Your task to perform on an android device: Set the phone to "Do not disturb". Image 0: 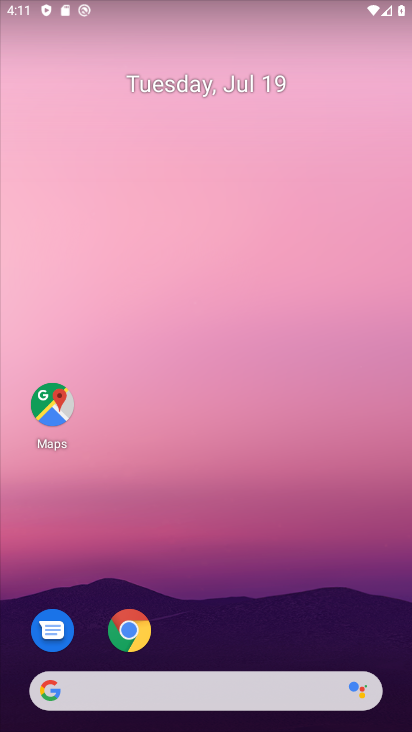
Step 0: drag from (258, 532) to (156, 253)
Your task to perform on an android device: Set the phone to "Do not disturb". Image 1: 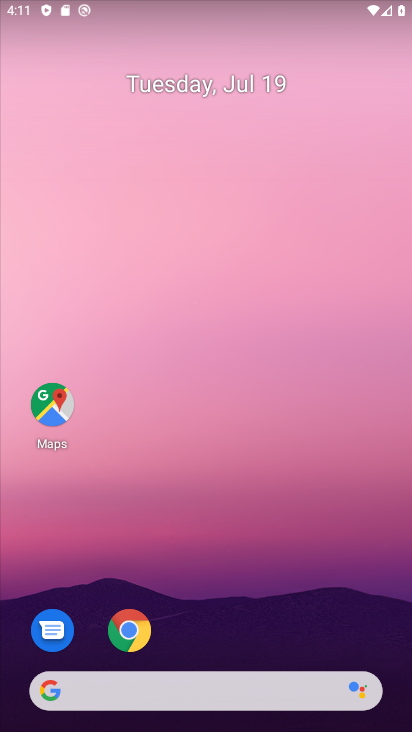
Step 1: drag from (231, 548) to (134, 224)
Your task to perform on an android device: Set the phone to "Do not disturb". Image 2: 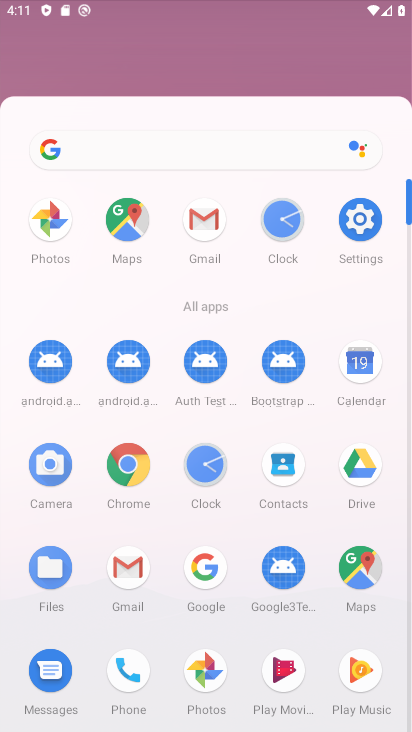
Step 2: click (227, 228)
Your task to perform on an android device: Set the phone to "Do not disturb". Image 3: 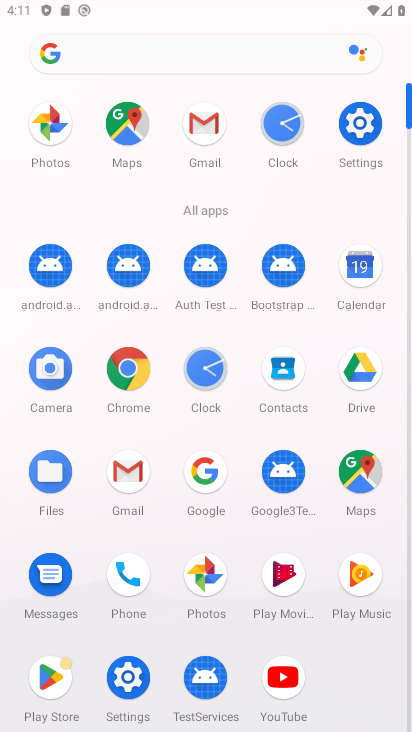
Step 3: drag from (242, 306) to (230, 147)
Your task to perform on an android device: Set the phone to "Do not disturb". Image 4: 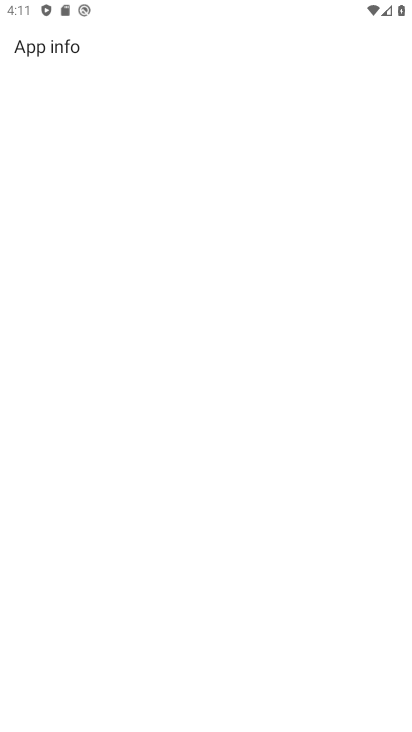
Step 4: click (351, 117)
Your task to perform on an android device: Set the phone to "Do not disturb". Image 5: 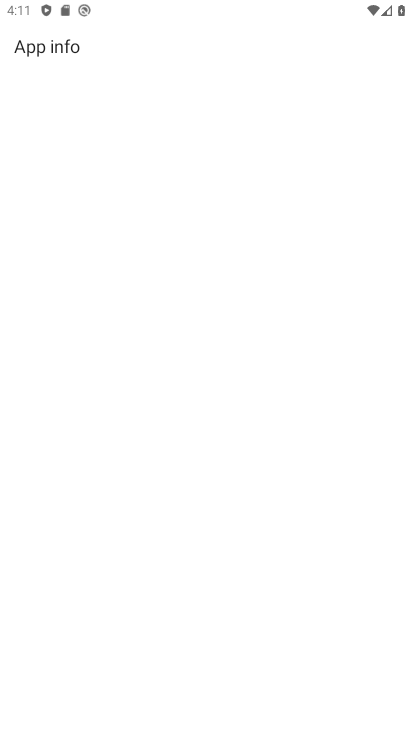
Step 5: click (349, 116)
Your task to perform on an android device: Set the phone to "Do not disturb". Image 6: 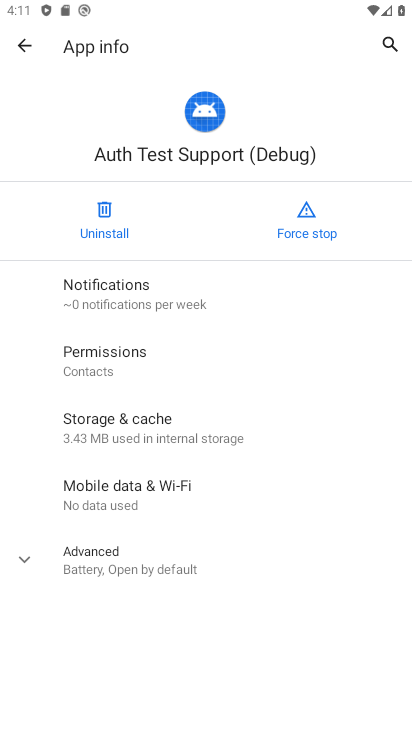
Step 6: click (36, 55)
Your task to perform on an android device: Set the phone to "Do not disturb". Image 7: 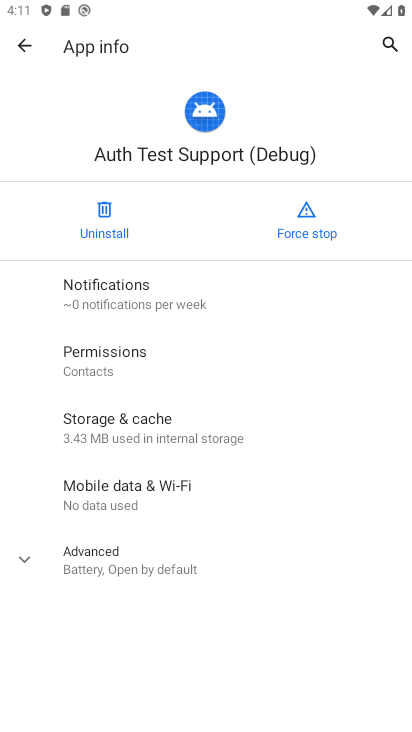
Step 7: click (22, 42)
Your task to perform on an android device: Set the phone to "Do not disturb". Image 8: 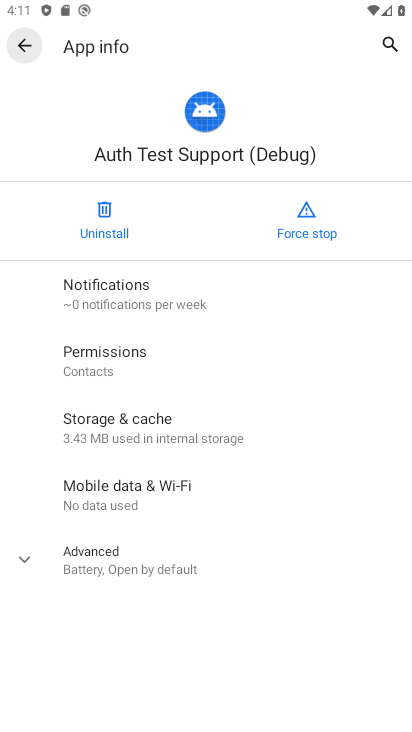
Step 8: click (22, 42)
Your task to perform on an android device: Set the phone to "Do not disturb". Image 9: 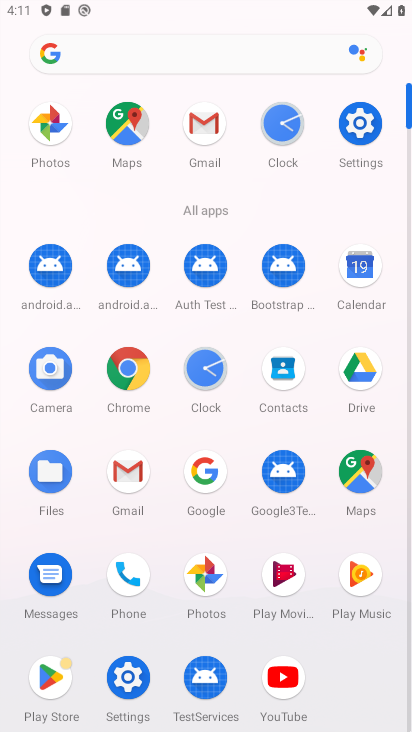
Step 9: click (371, 126)
Your task to perform on an android device: Set the phone to "Do not disturb". Image 10: 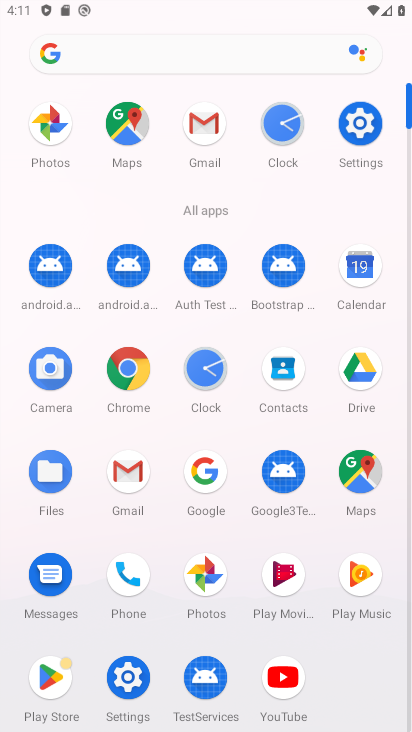
Step 10: click (371, 125)
Your task to perform on an android device: Set the phone to "Do not disturb". Image 11: 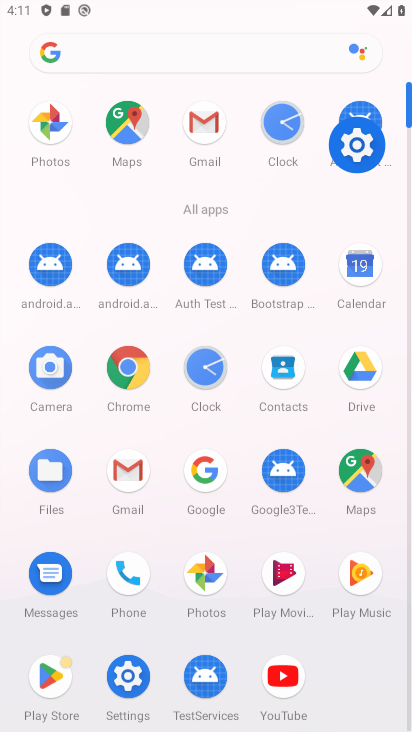
Step 11: click (372, 126)
Your task to perform on an android device: Set the phone to "Do not disturb". Image 12: 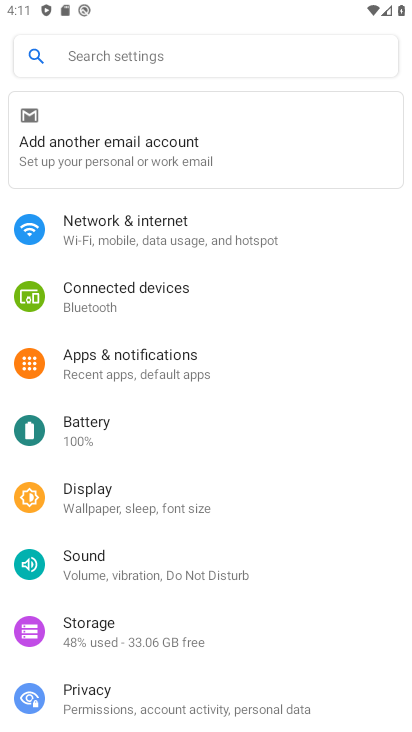
Step 12: click (134, 562)
Your task to perform on an android device: Set the phone to "Do not disturb". Image 13: 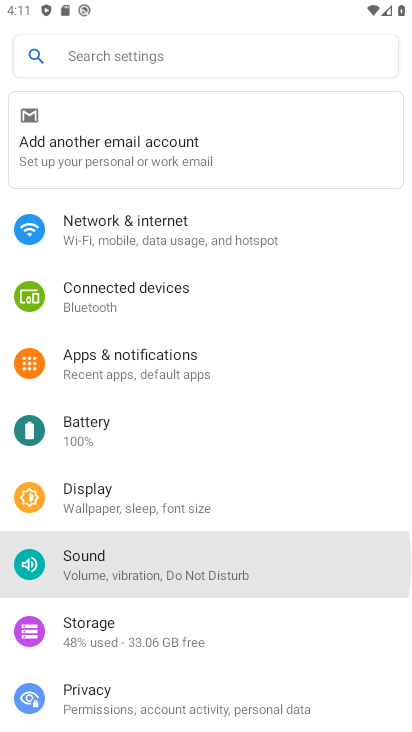
Step 13: click (128, 565)
Your task to perform on an android device: Set the phone to "Do not disturb". Image 14: 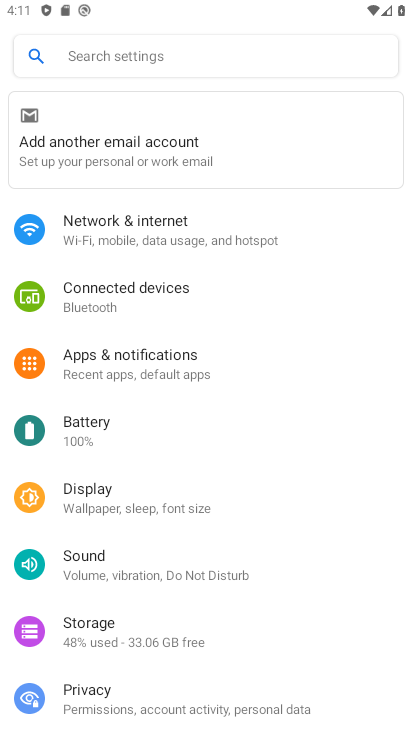
Step 14: click (128, 565)
Your task to perform on an android device: Set the phone to "Do not disturb". Image 15: 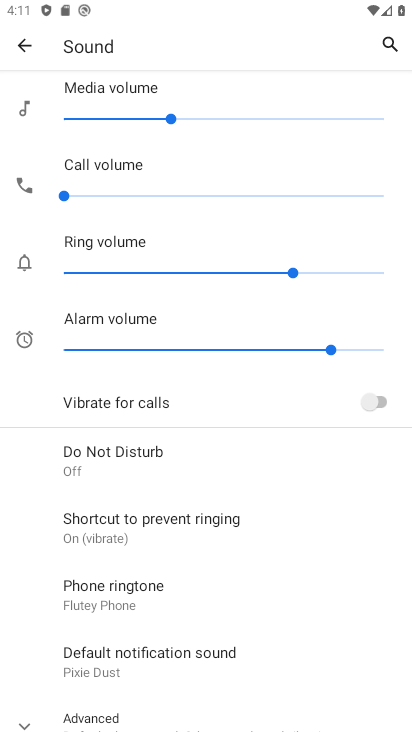
Step 15: click (75, 452)
Your task to perform on an android device: Set the phone to "Do not disturb". Image 16: 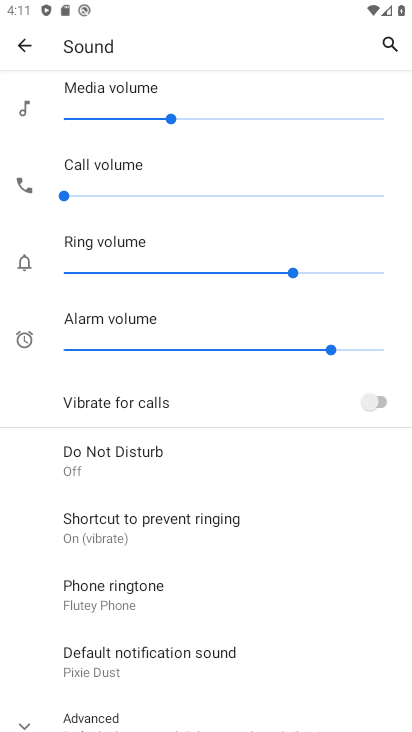
Step 16: click (75, 452)
Your task to perform on an android device: Set the phone to "Do not disturb". Image 17: 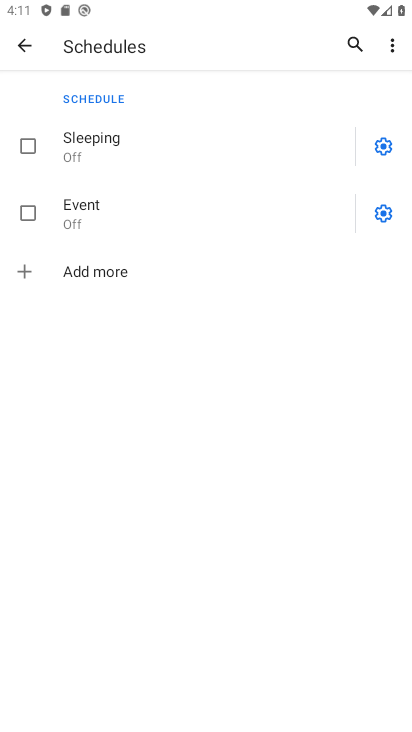
Step 17: click (110, 518)
Your task to perform on an android device: Set the phone to "Do not disturb". Image 18: 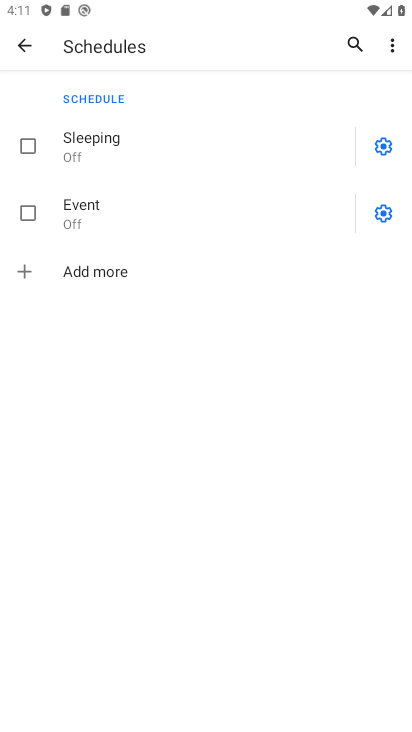
Step 18: click (22, 46)
Your task to perform on an android device: Set the phone to "Do not disturb". Image 19: 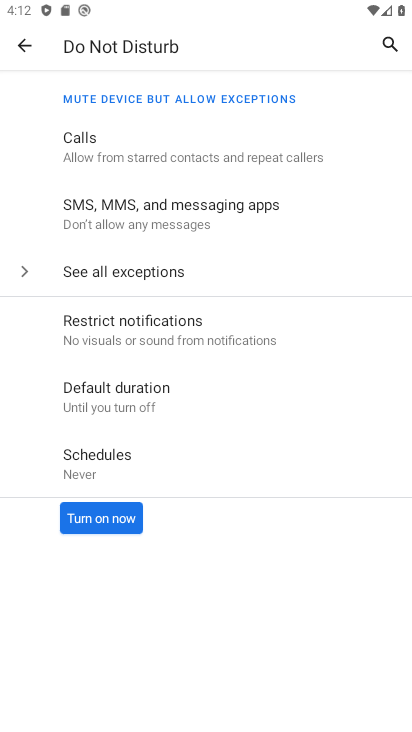
Step 19: click (90, 517)
Your task to perform on an android device: Set the phone to "Do not disturb". Image 20: 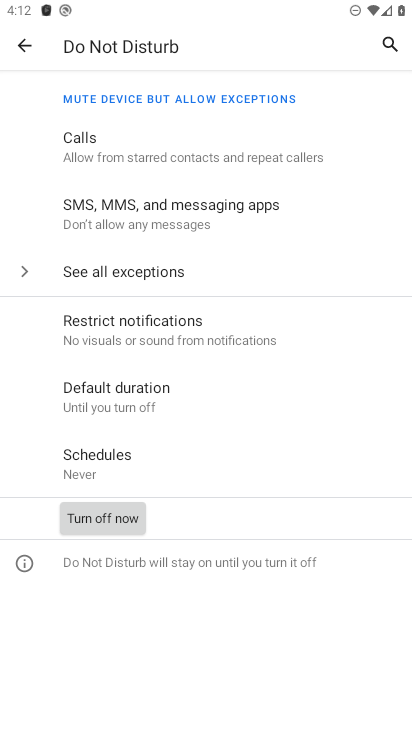
Step 20: task complete